Your task to perform on an android device: Open CNN.com Image 0: 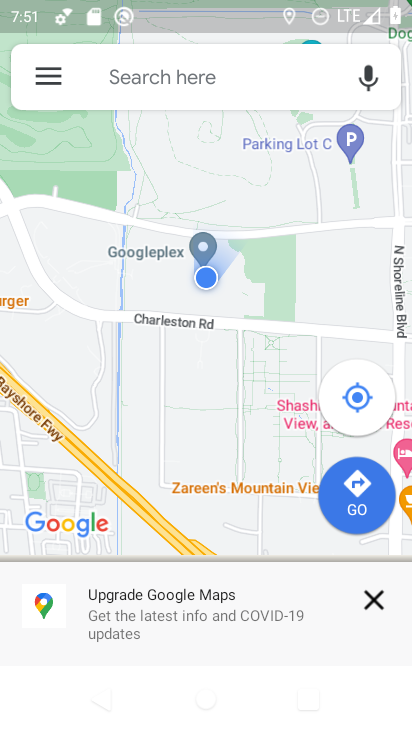
Step 0: press home button
Your task to perform on an android device: Open CNN.com Image 1: 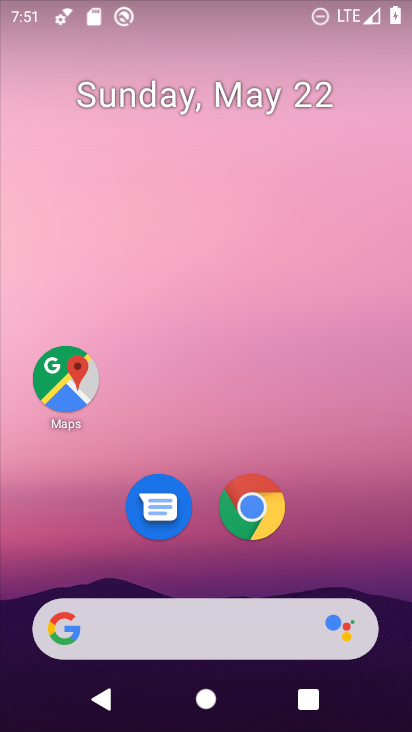
Step 1: click (192, 627)
Your task to perform on an android device: Open CNN.com Image 2: 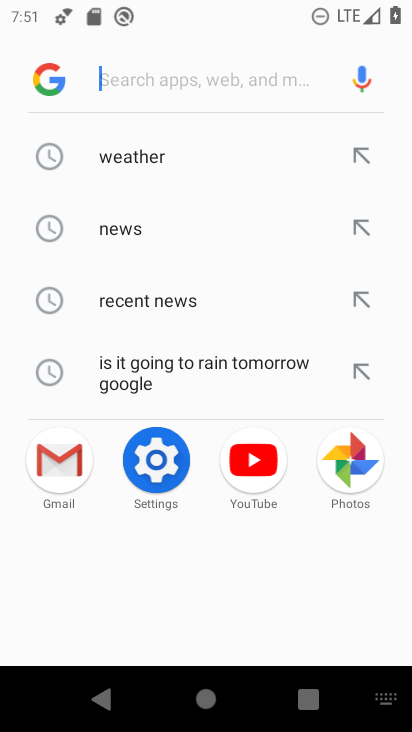
Step 2: type "cnn.com"
Your task to perform on an android device: Open CNN.com Image 3: 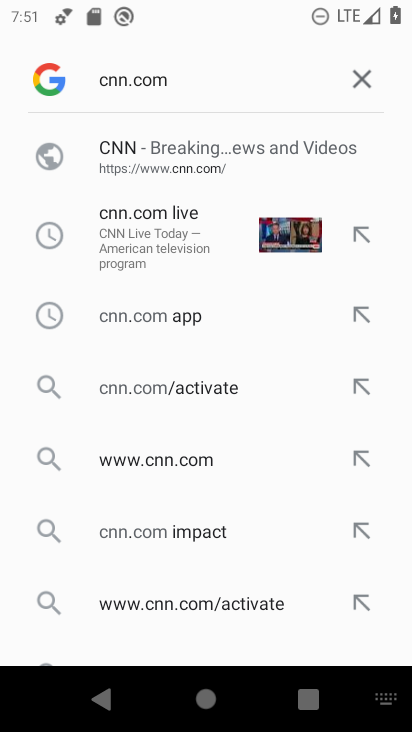
Step 3: click (146, 157)
Your task to perform on an android device: Open CNN.com Image 4: 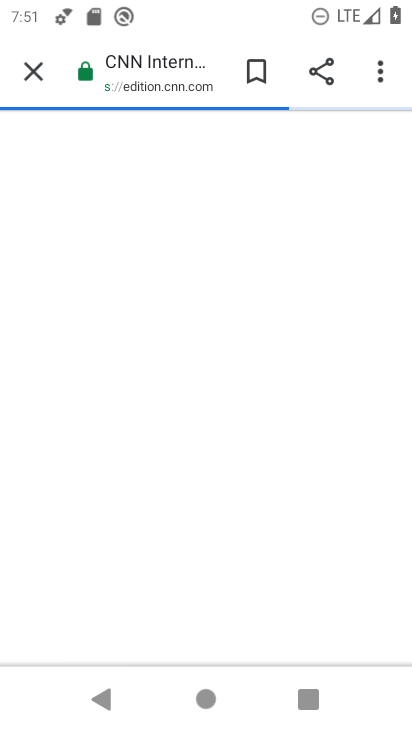
Step 4: task complete